Your task to perform on an android device: change your default location settings in chrome Image 0: 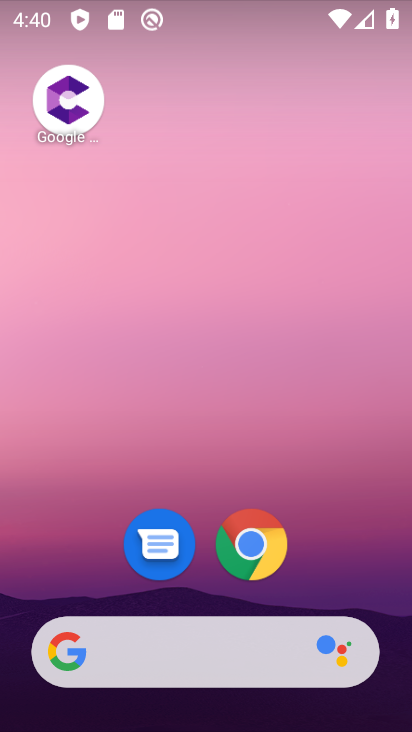
Step 0: click (239, 563)
Your task to perform on an android device: change your default location settings in chrome Image 1: 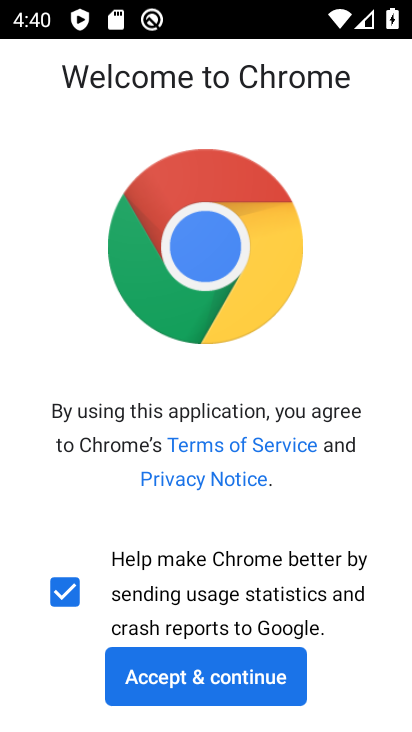
Step 1: click (190, 678)
Your task to perform on an android device: change your default location settings in chrome Image 2: 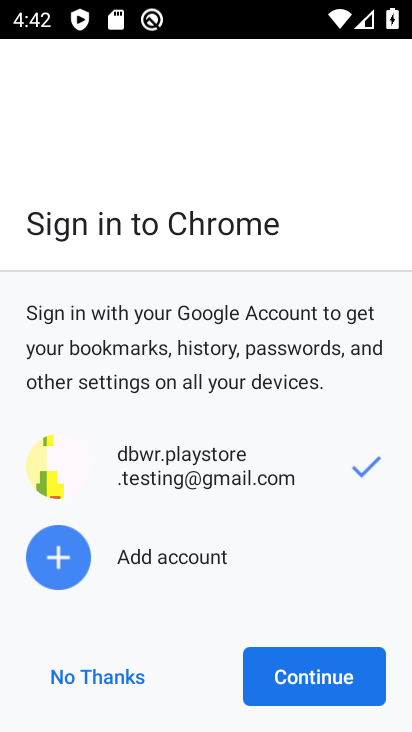
Step 2: click (312, 678)
Your task to perform on an android device: change your default location settings in chrome Image 3: 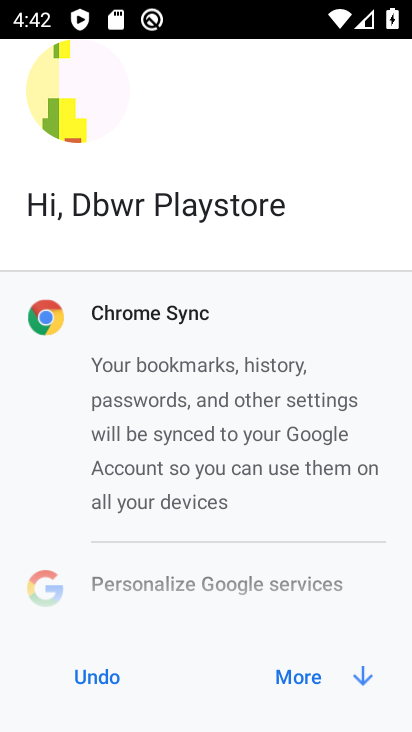
Step 3: click (297, 661)
Your task to perform on an android device: change your default location settings in chrome Image 4: 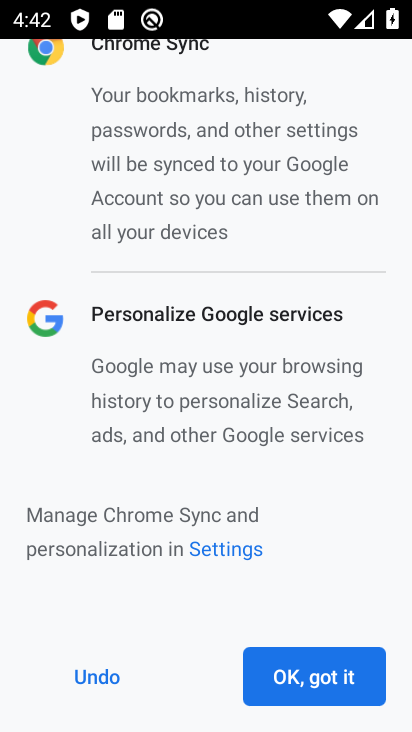
Step 4: click (297, 661)
Your task to perform on an android device: change your default location settings in chrome Image 5: 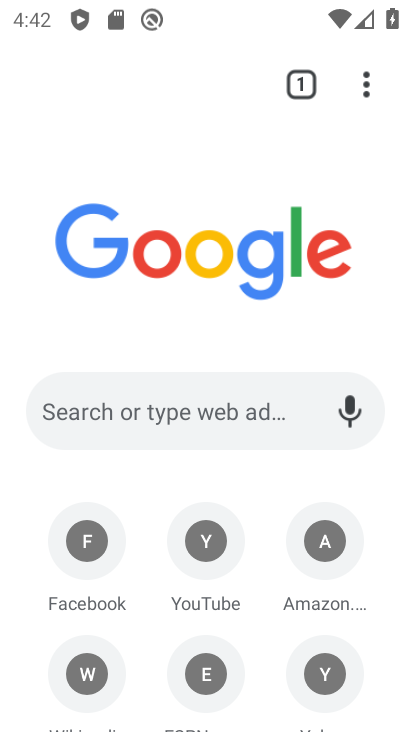
Step 5: click (362, 93)
Your task to perform on an android device: change your default location settings in chrome Image 6: 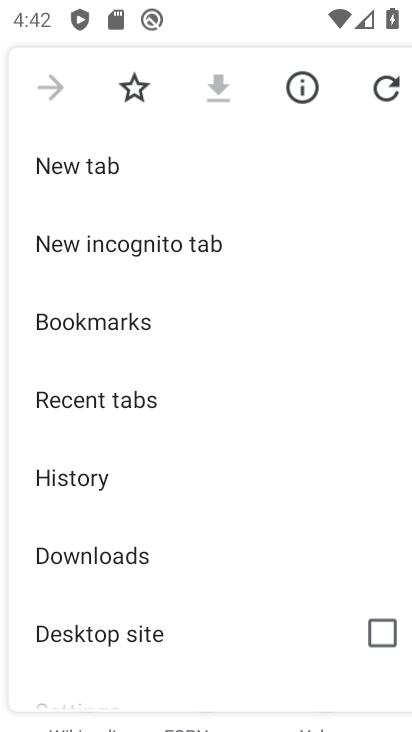
Step 6: drag from (191, 603) to (194, 261)
Your task to perform on an android device: change your default location settings in chrome Image 7: 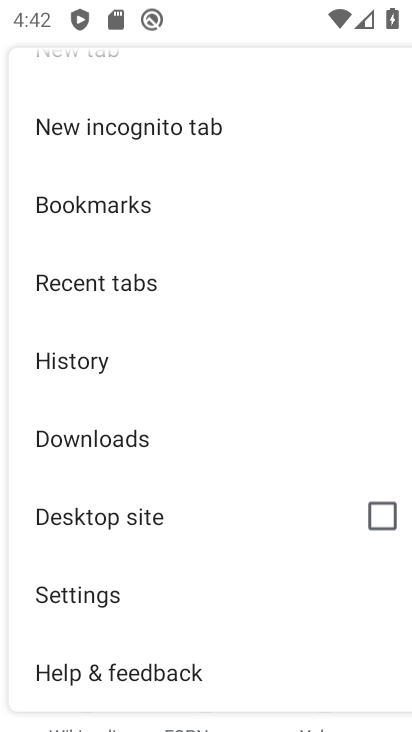
Step 7: click (103, 573)
Your task to perform on an android device: change your default location settings in chrome Image 8: 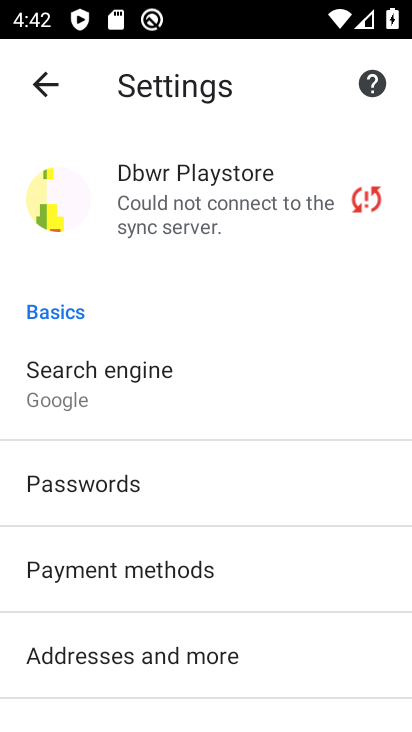
Step 8: drag from (196, 595) to (200, 229)
Your task to perform on an android device: change your default location settings in chrome Image 9: 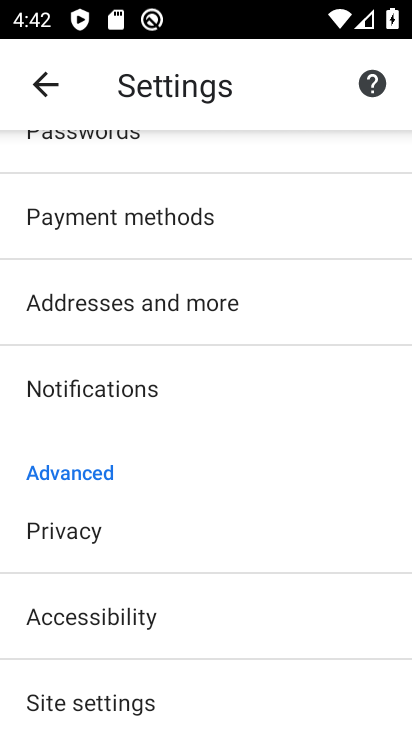
Step 9: click (197, 313)
Your task to perform on an android device: change your default location settings in chrome Image 10: 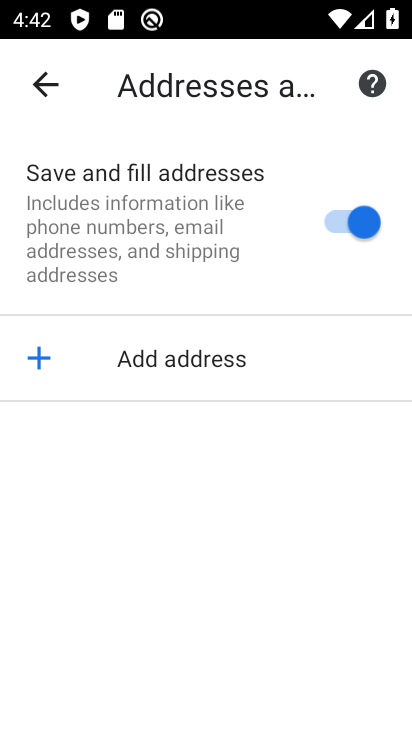
Step 10: task complete